Your task to perform on an android device: Open calendar and show me the third week of next month Image 0: 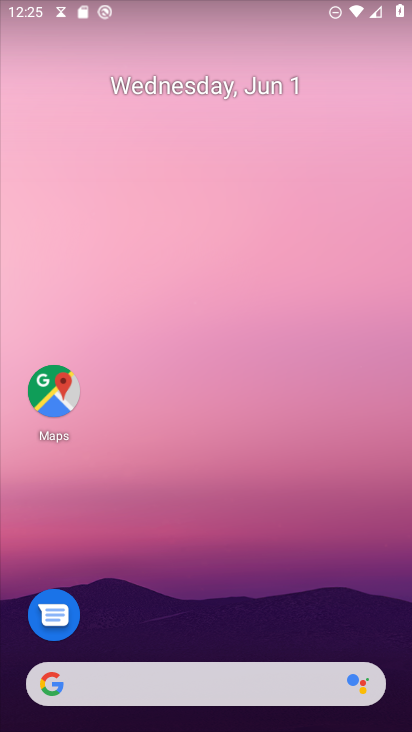
Step 0: drag from (272, 626) to (281, 132)
Your task to perform on an android device: Open calendar and show me the third week of next month Image 1: 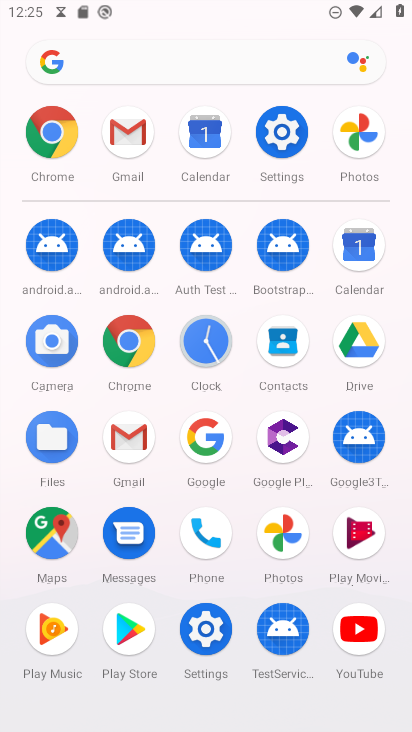
Step 1: click (365, 266)
Your task to perform on an android device: Open calendar and show me the third week of next month Image 2: 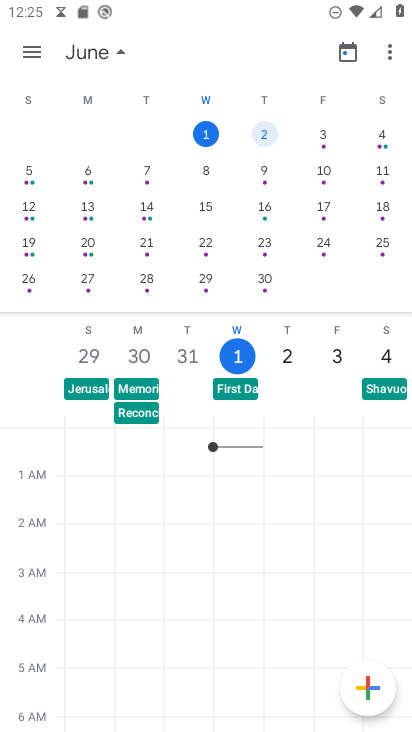
Step 2: drag from (354, 210) to (16, 198)
Your task to perform on an android device: Open calendar and show me the third week of next month Image 3: 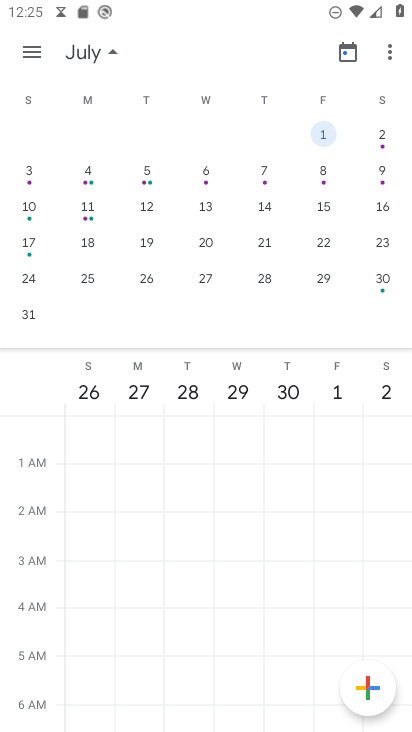
Step 3: click (381, 208)
Your task to perform on an android device: Open calendar and show me the third week of next month Image 4: 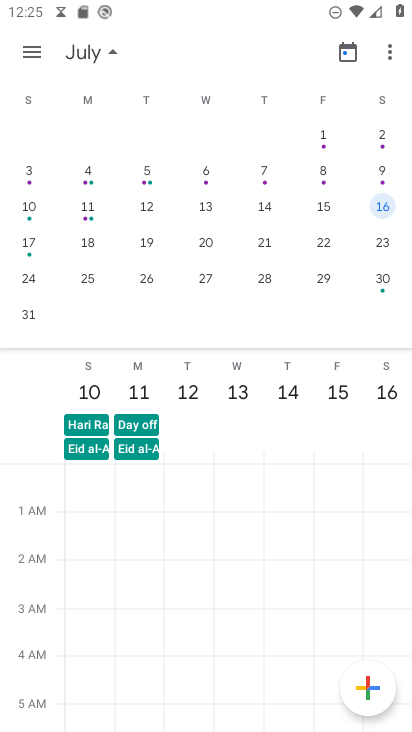
Step 4: click (26, 55)
Your task to perform on an android device: Open calendar and show me the third week of next month Image 5: 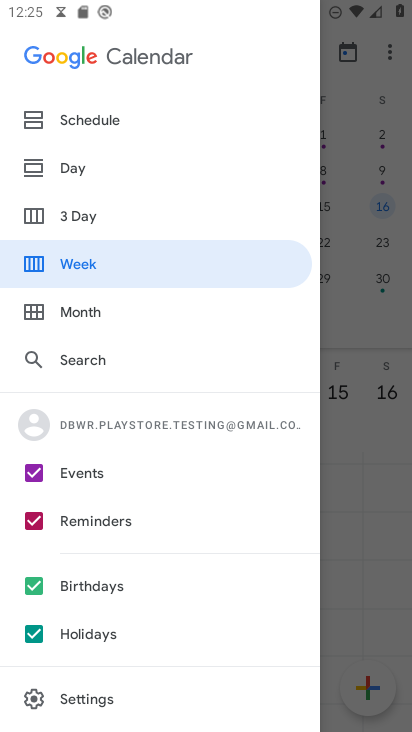
Step 5: click (121, 263)
Your task to perform on an android device: Open calendar and show me the third week of next month Image 6: 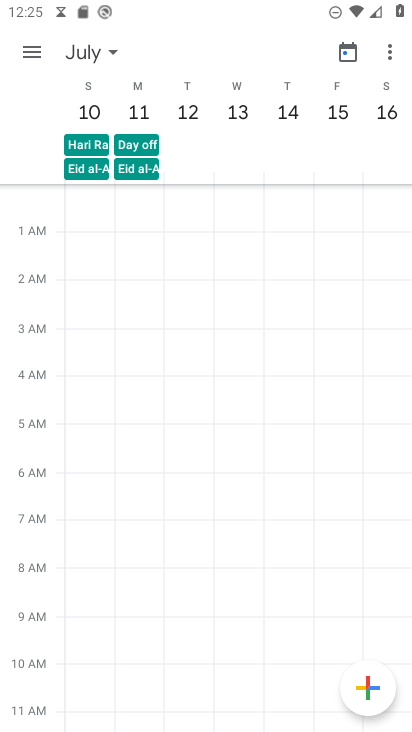
Step 6: task complete